Your task to perform on an android device: toggle sleep mode Image 0: 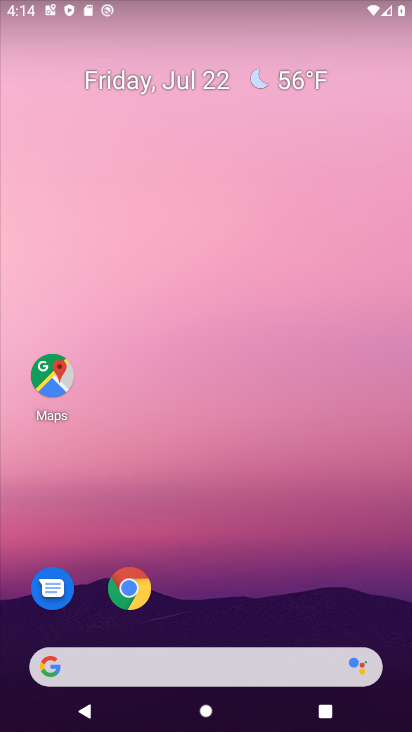
Step 0: drag from (181, 591) to (211, 259)
Your task to perform on an android device: toggle sleep mode Image 1: 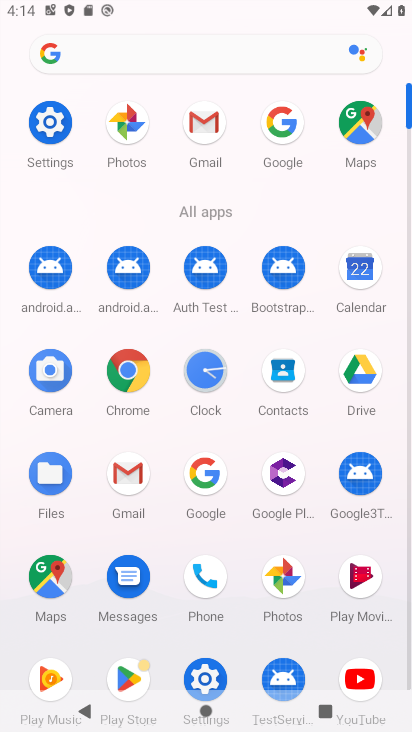
Step 1: click (59, 114)
Your task to perform on an android device: toggle sleep mode Image 2: 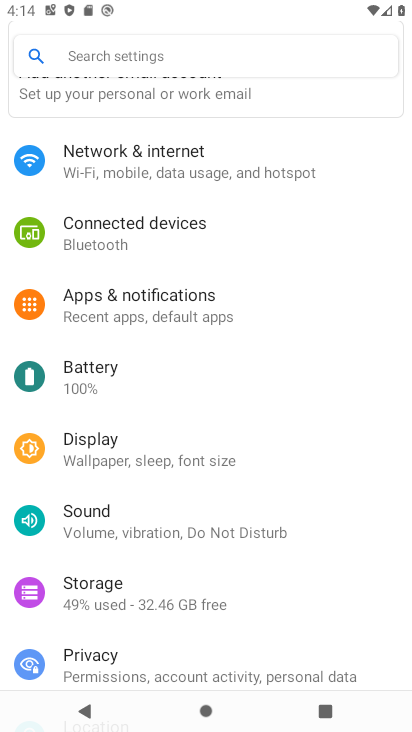
Step 2: click (130, 443)
Your task to perform on an android device: toggle sleep mode Image 3: 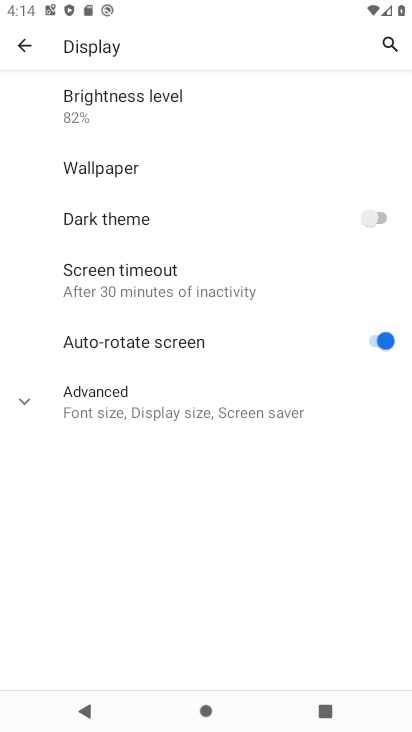
Step 3: click (138, 275)
Your task to perform on an android device: toggle sleep mode Image 4: 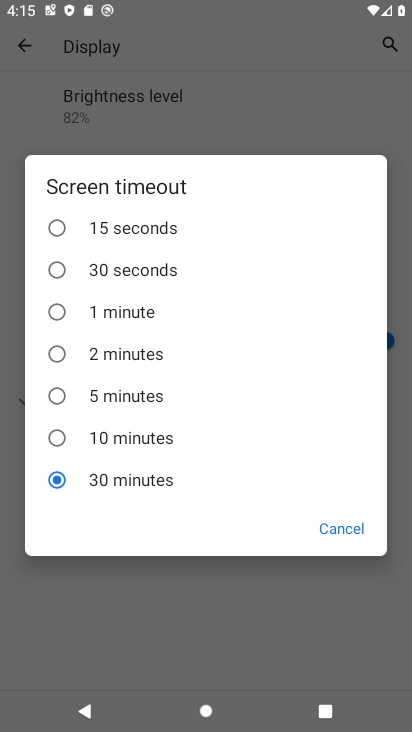
Step 4: click (146, 280)
Your task to perform on an android device: toggle sleep mode Image 5: 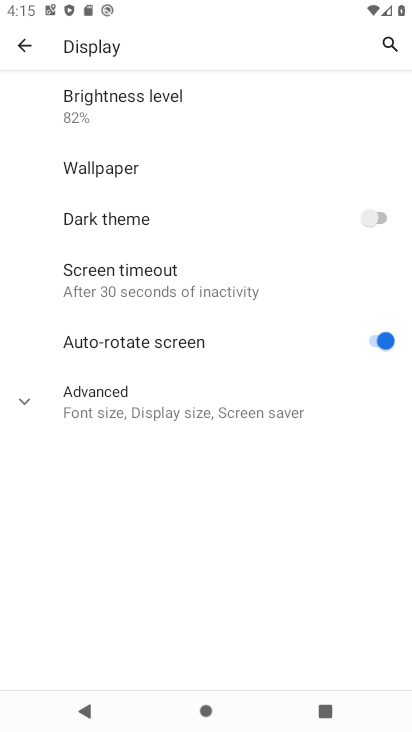
Step 5: task complete